Your task to perform on an android device: Go to internet settings Image 0: 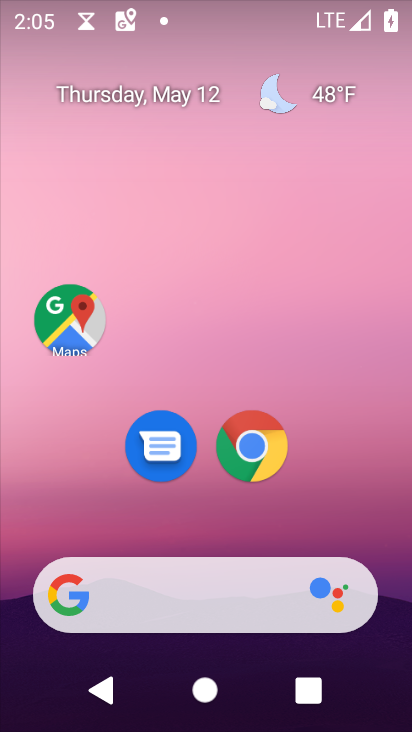
Step 0: drag from (318, 509) to (248, 15)
Your task to perform on an android device: Go to internet settings Image 1: 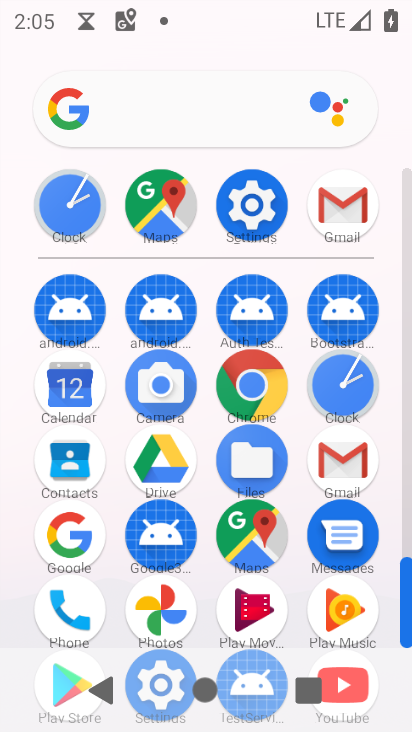
Step 1: click (233, 192)
Your task to perform on an android device: Go to internet settings Image 2: 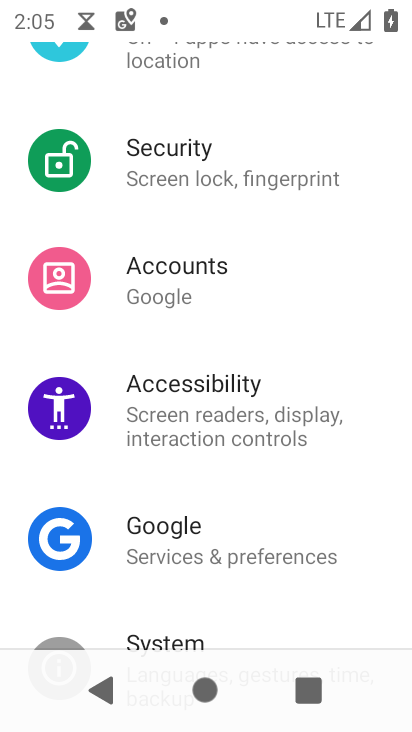
Step 2: drag from (271, 152) to (272, 594)
Your task to perform on an android device: Go to internet settings Image 3: 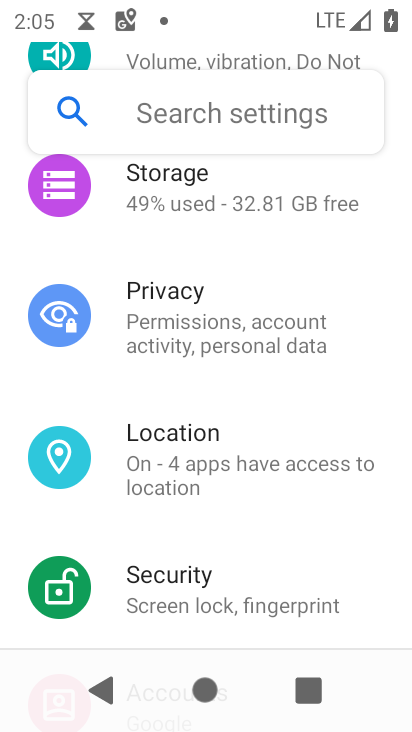
Step 3: drag from (248, 247) to (248, 531)
Your task to perform on an android device: Go to internet settings Image 4: 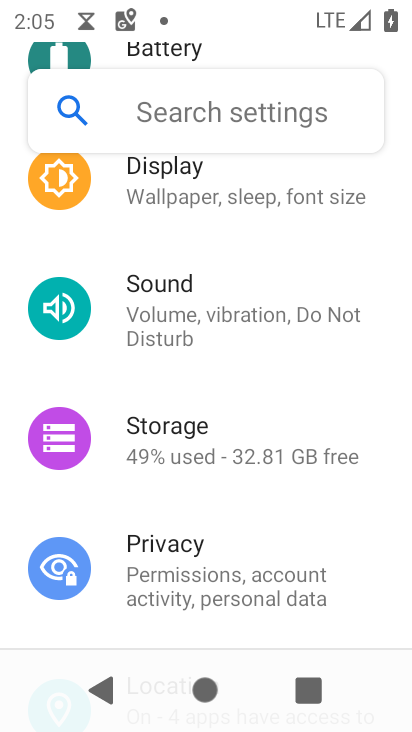
Step 4: drag from (228, 286) to (228, 585)
Your task to perform on an android device: Go to internet settings Image 5: 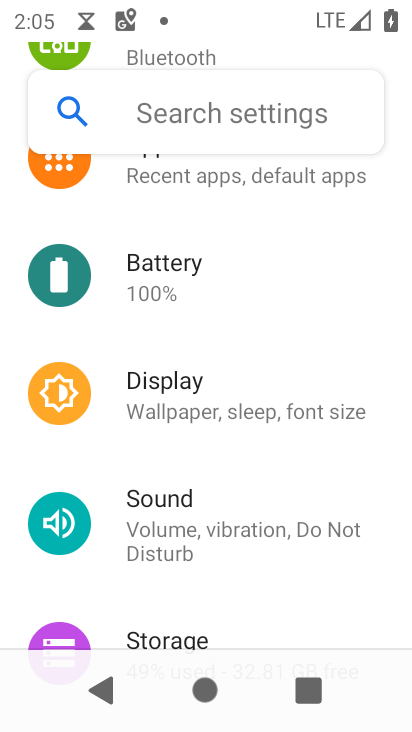
Step 5: drag from (226, 280) to (217, 575)
Your task to perform on an android device: Go to internet settings Image 6: 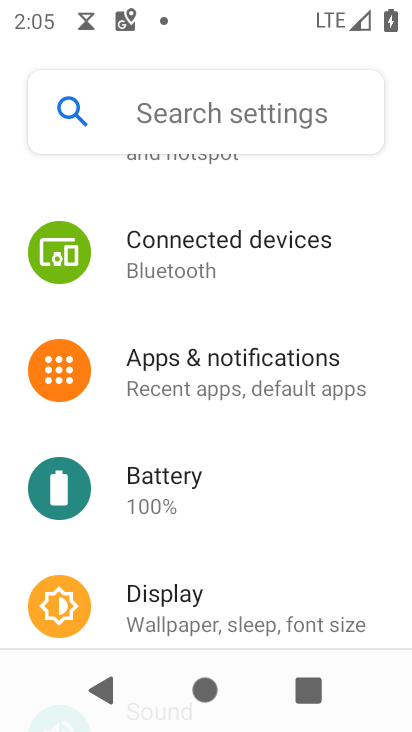
Step 6: drag from (241, 225) to (252, 651)
Your task to perform on an android device: Go to internet settings Image 7: 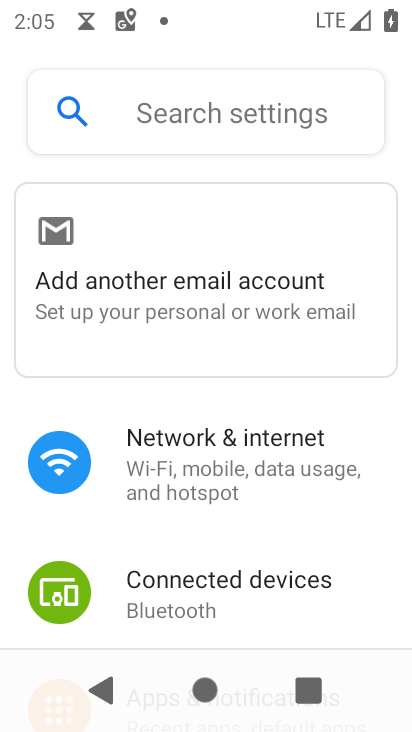
Step 7: click (278, 456)
Your task to perform on an android device: Go to internet settings Image 8: 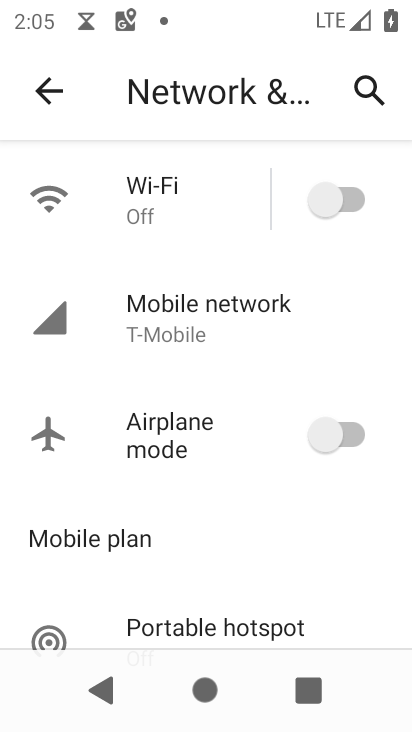
Step 8: task complete